Your task to perform on an android device: turn off sleep mode Image 0: 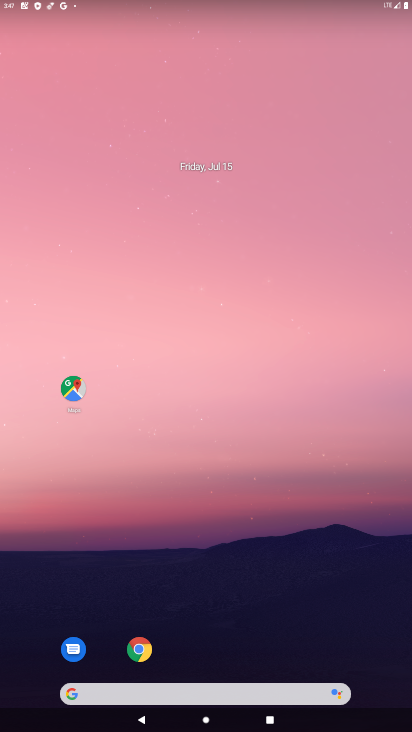
Step 0: drag from (175, 651) to (92, 227)
Your task to perform on an android device: turn off sleep mode Image 1: 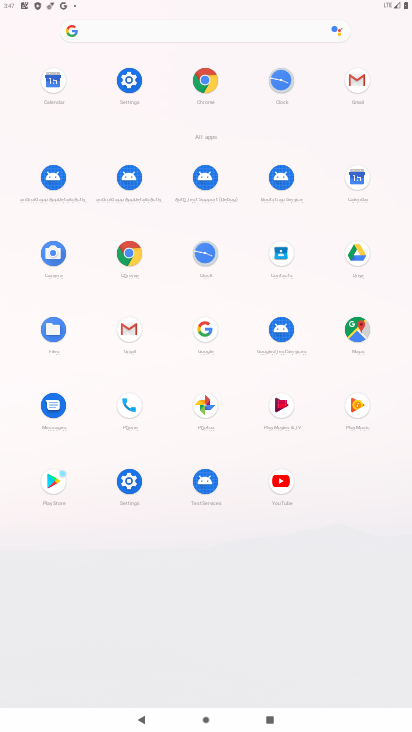
Step 1: click (130, 92)
Your task to perform on an android device: turn off sleep mode Image 2: 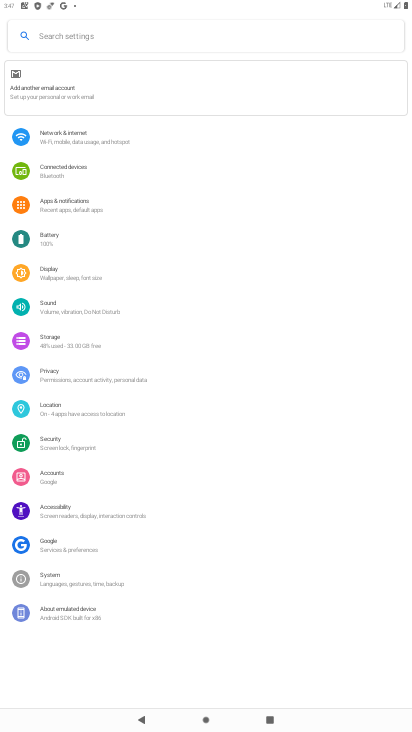
Step 2: click (56, 279)
Your task to perform on an android device: turn off sleep mode Image 3: 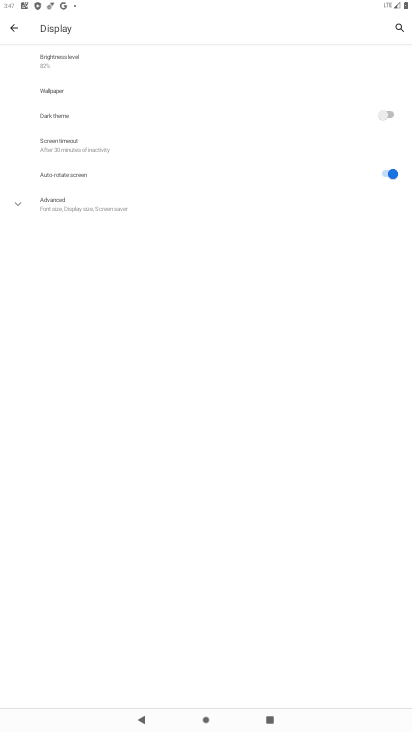
Step 3: click (48, 155)
Your task to perform on an android device: turn off sleep mode Image 4: 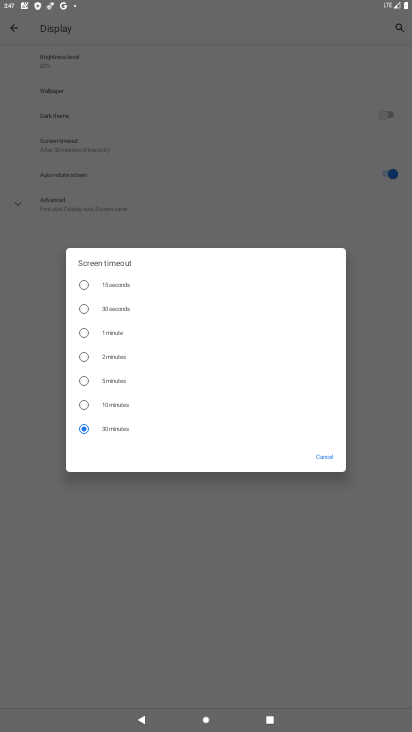
Step 4: click (109, 332)
Your task to perform on an android device: turn off sleep mode Image 5: 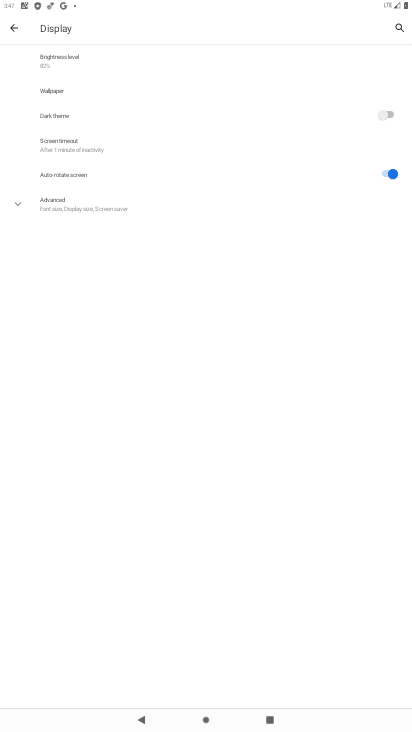
Step 5: task complete